Your task to perform on an android device: check data usage Image 0: 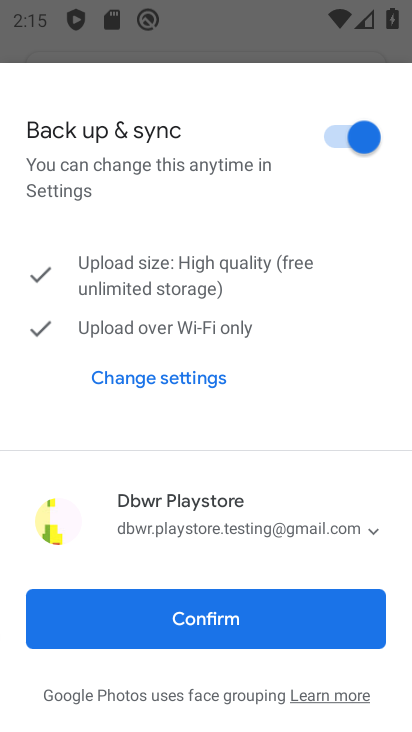
Step 0: drag from (187, 631) to (218, 722)
Your task to perform on an android device: check data usage Image 1: 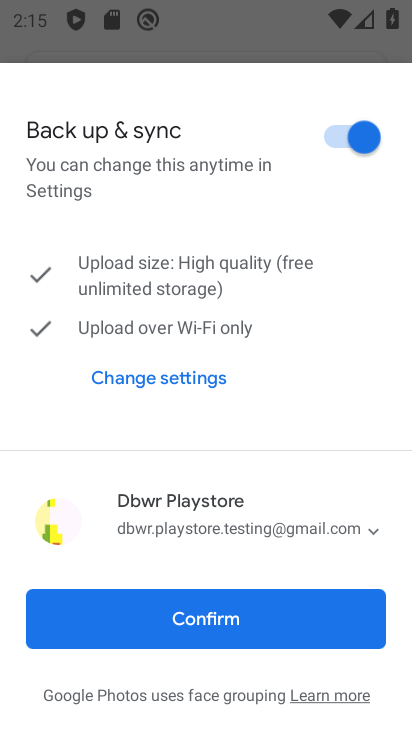
Step 1: press home button
Your task to perform on an android device: check data usage Image 2: 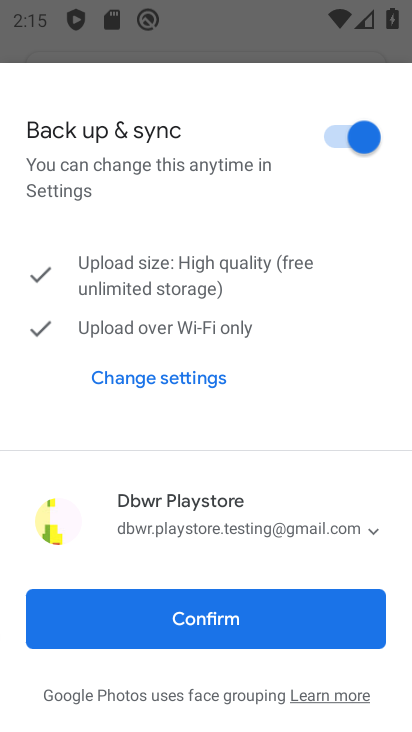
Step 2: drag from (218, 722) to (364, 624)
Your task to perform on an android device: check data usage Image 3: 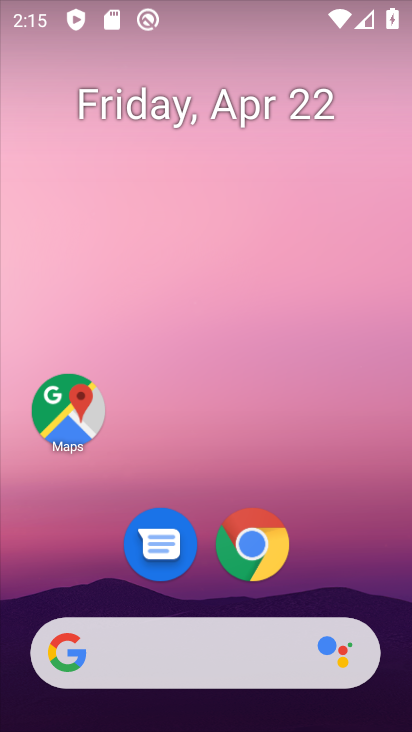
Step 3: drag from (210, 592) to (289, 53)
Your task to perform on an android device: check data usage Image 4: 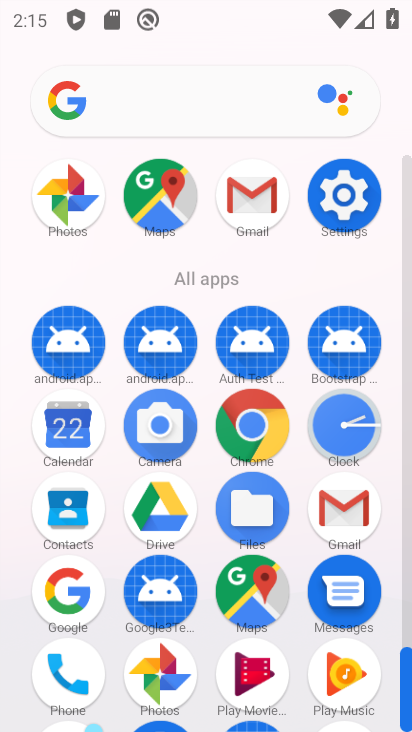
Step 4: click (344, 196)
Your task to perform on an android device: check data usage Image 5: 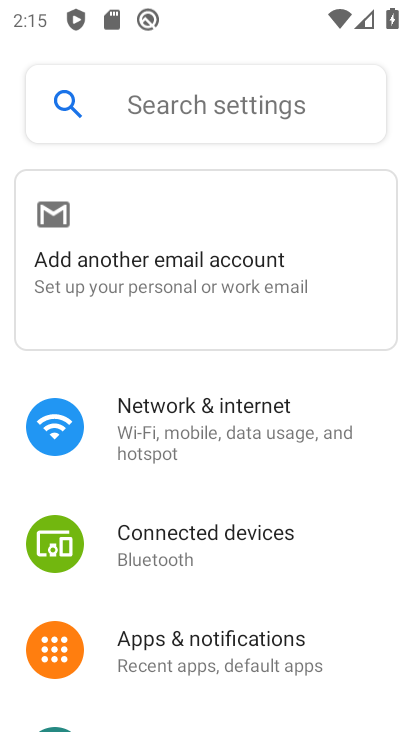
Step 5: click (196, 432)
Your task to perform on an android device: check data usage Image 6: 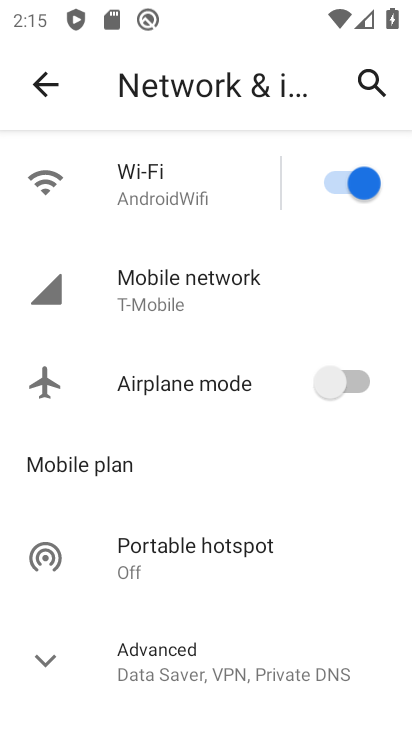
Step 6: click (178, 298)
Your task to perform on an android device: check data usage Image 7: 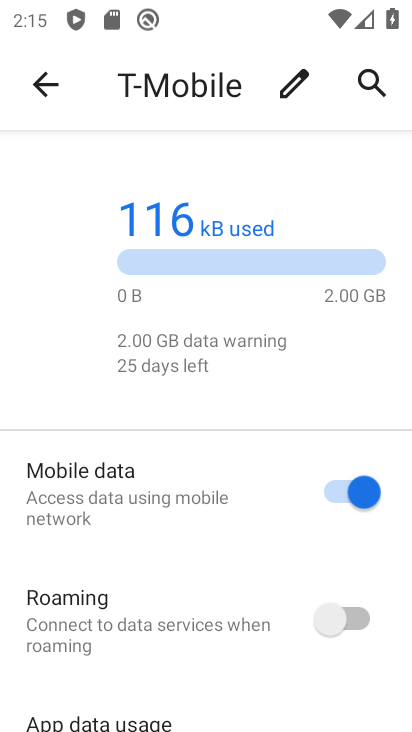
Step 7: task complete